Your task to perform on an android device: Clear all items from cart on target. Image 0: 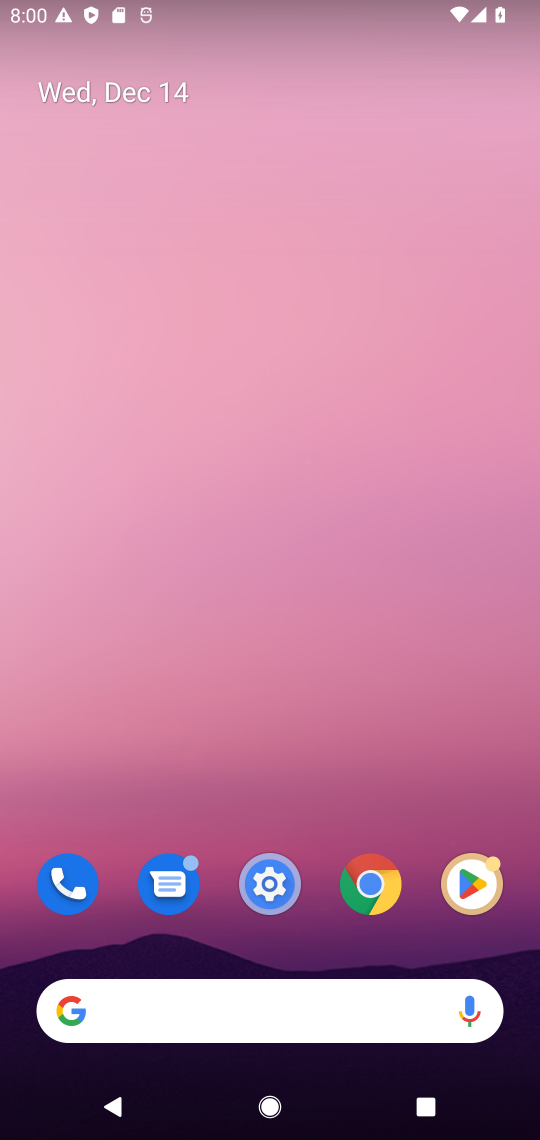
Step 0: click (370, 880)
Your task to perform on an android device: Clear all items from cart on target. Image 1: 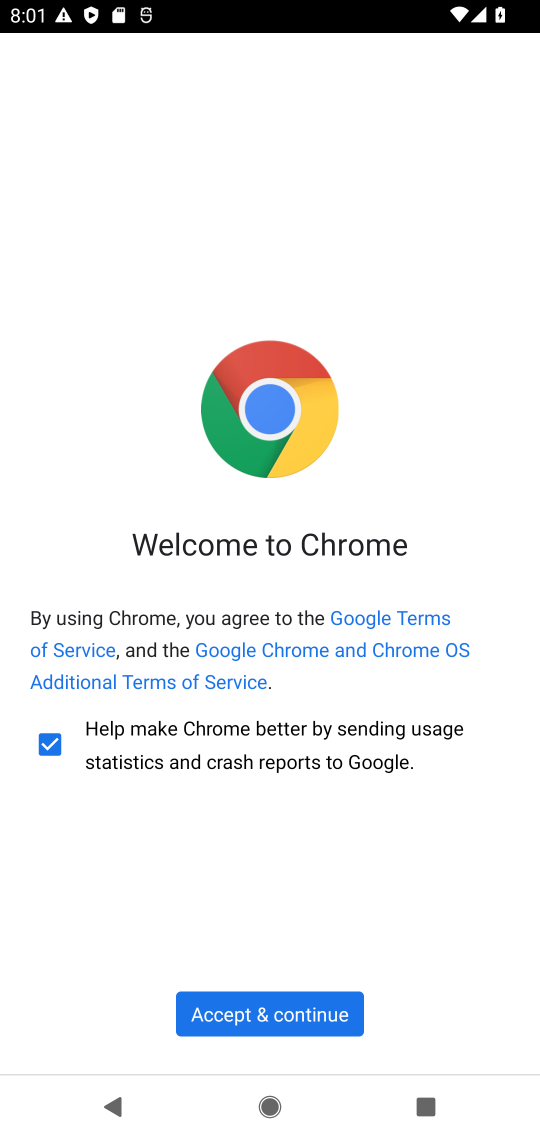
Step 1: click (214, 1019)
Your task to perform on an android device: Clear all items from cart on target. Image 2: 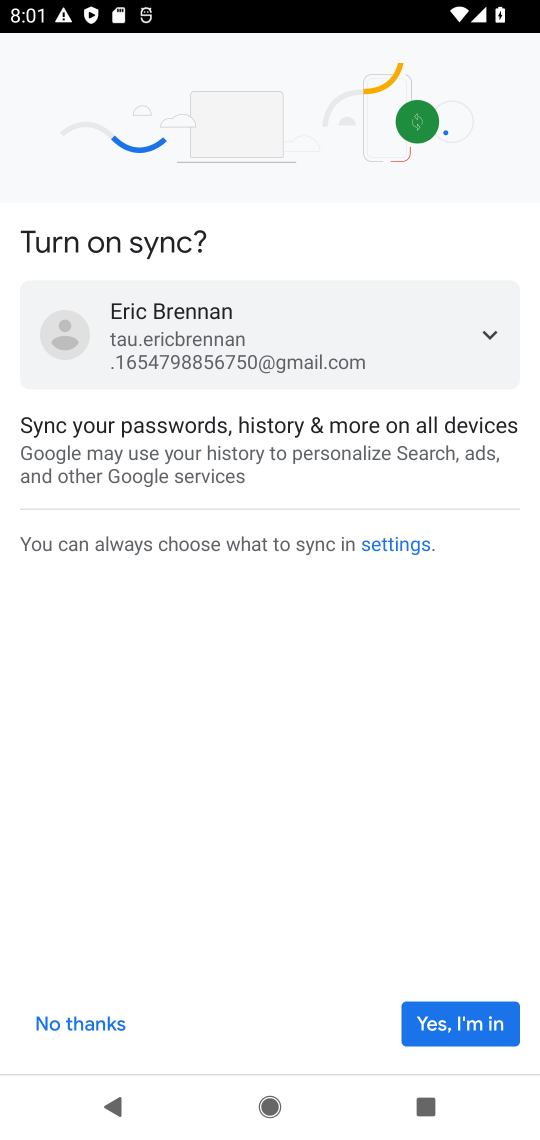
Step 2: click (432, 1016)
Your task to perform on an android device: Clear all items from cart on target. Image 3: 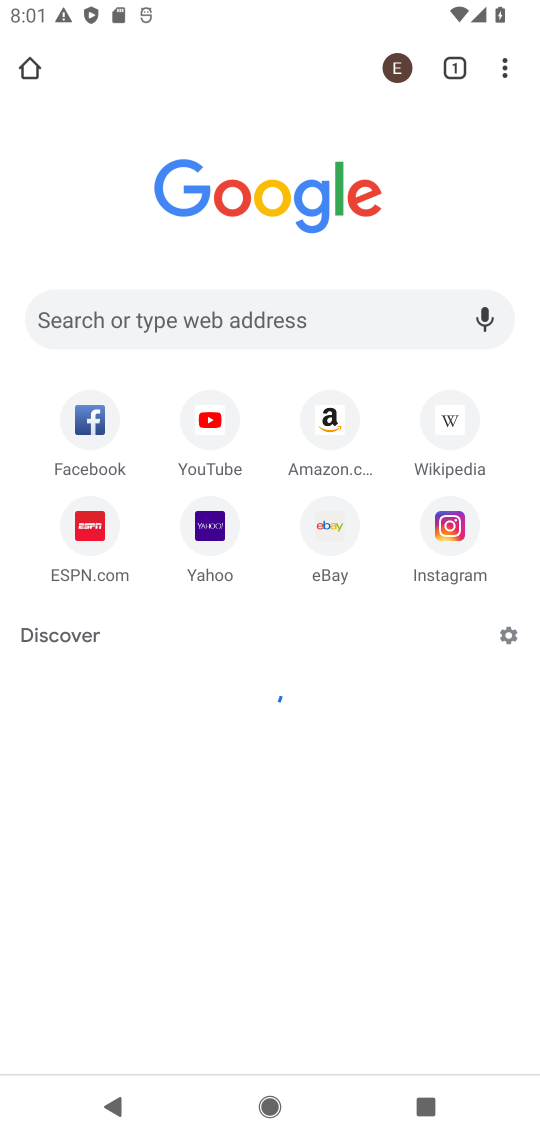
Step 3: click (341, 319)
Your task to perform on an android device: Clear all items from cart on target. Image 4: 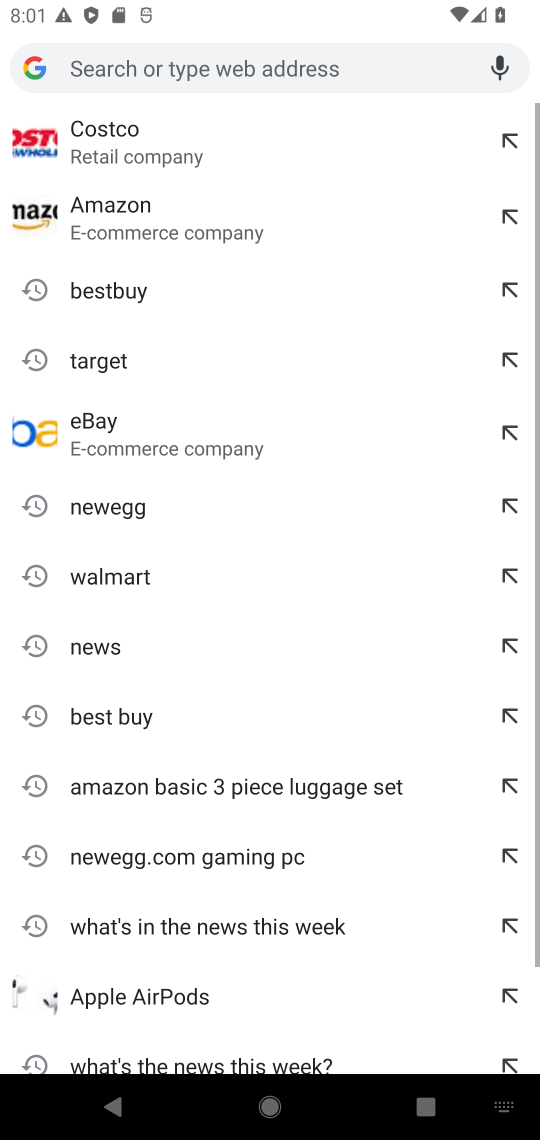
Step 4: click (119, 356)
Your task to perform on an android device: Clear all items from cart on target. Image 5: 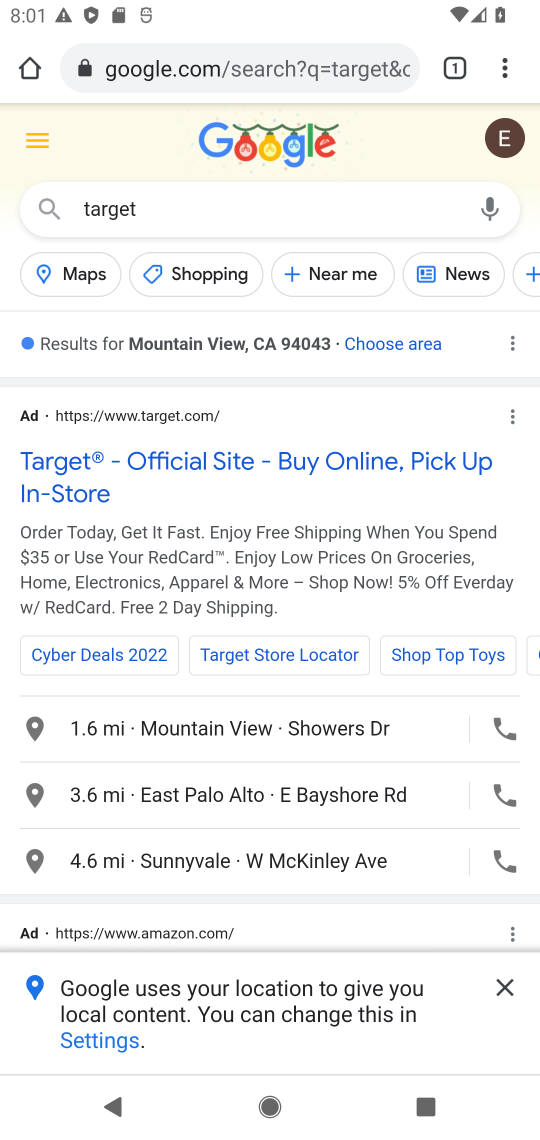
Step 5: click (254, 468)
Your task to perform on an android device: Clear all items from cart on target. Image 6: 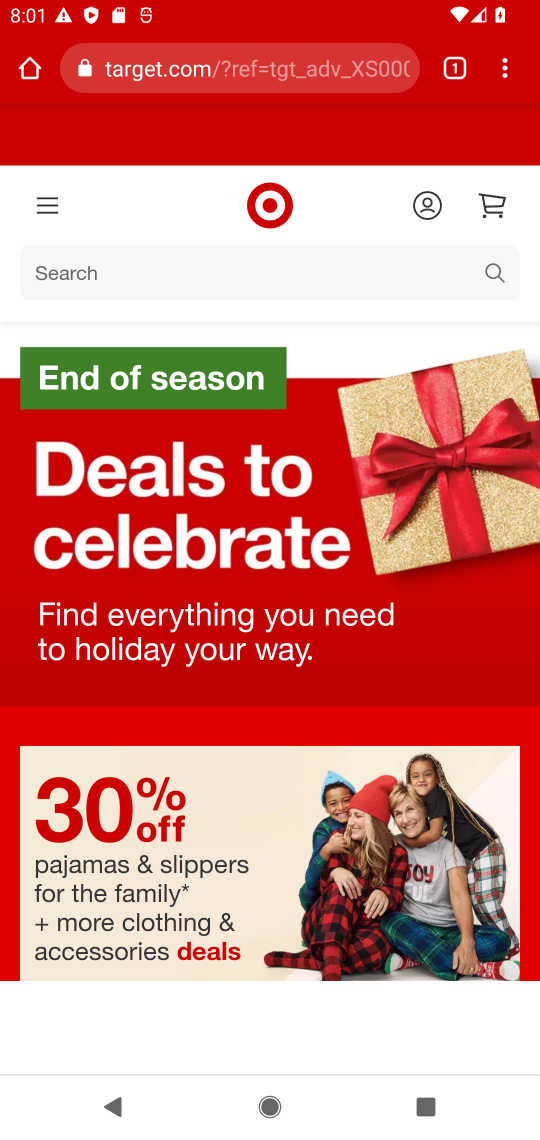
Step 6: click (488, 199)
Your task to perform on an android device: Clear all items from cart on target. Image 7: 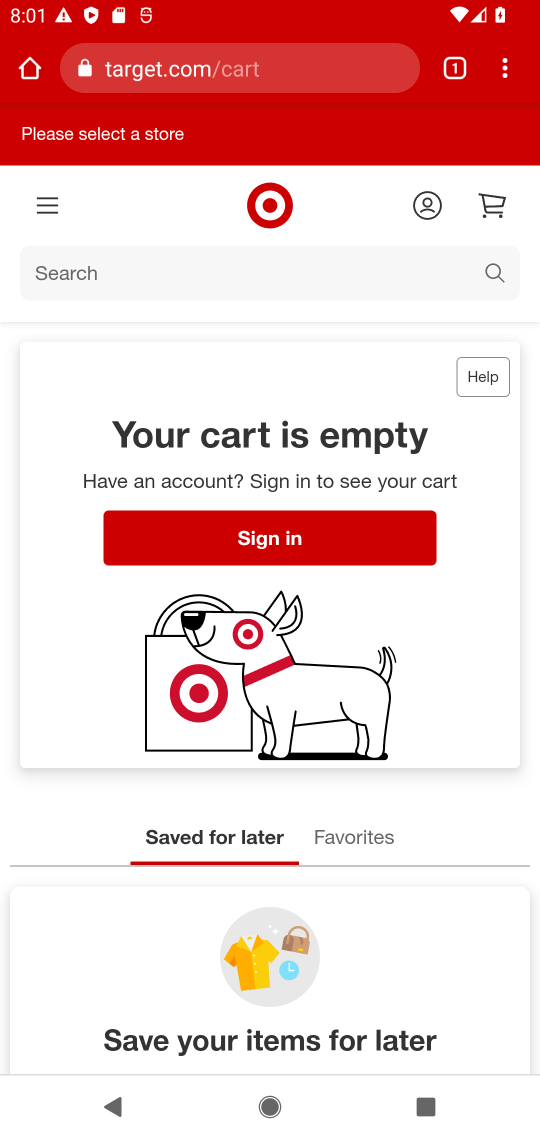
Step 7: task complete